Your task to perform on an android device: Go to privacy settings Image 0: 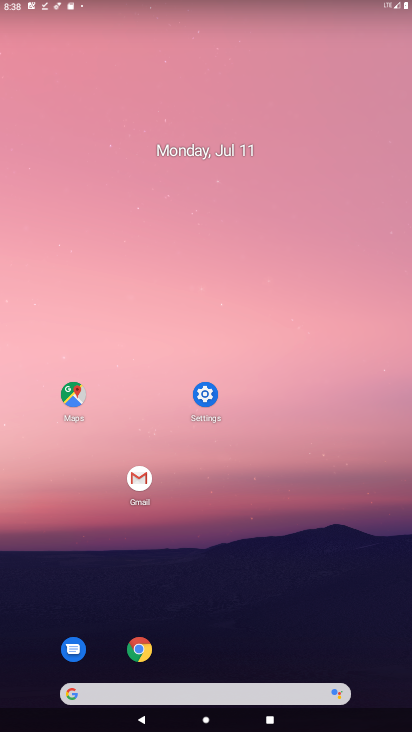
Step 0: click (204, 398)
Your task to perform on an android device: Go to privacy settings Image 1: 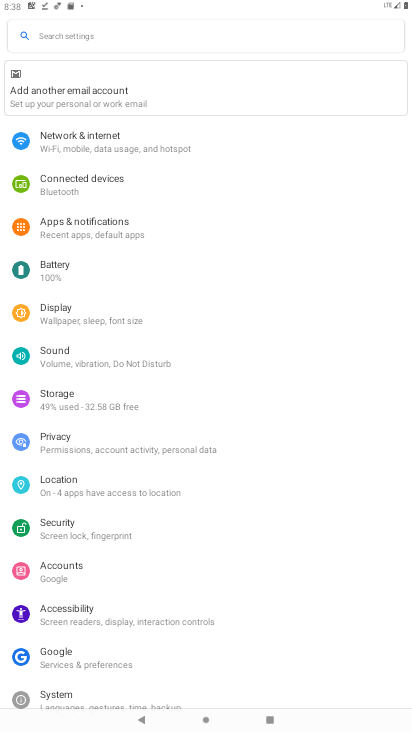
Step 1: click (60, 437)
Your task to perform on an android device: Go to privacy settings Image 2: 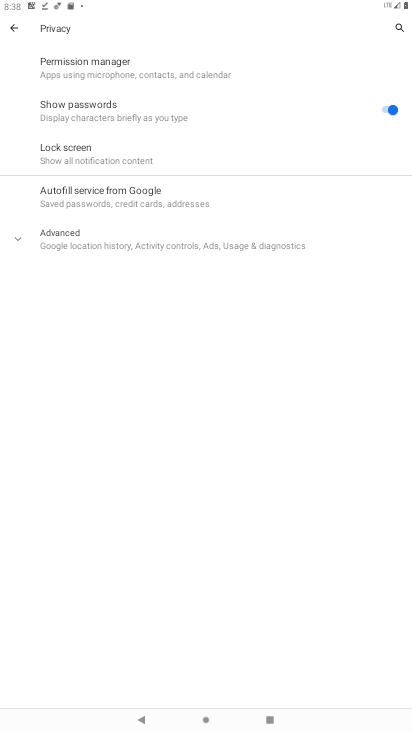
Step 2: click (16, 240)
Your task to perform on an android device: Go to privacy settings Image 3: 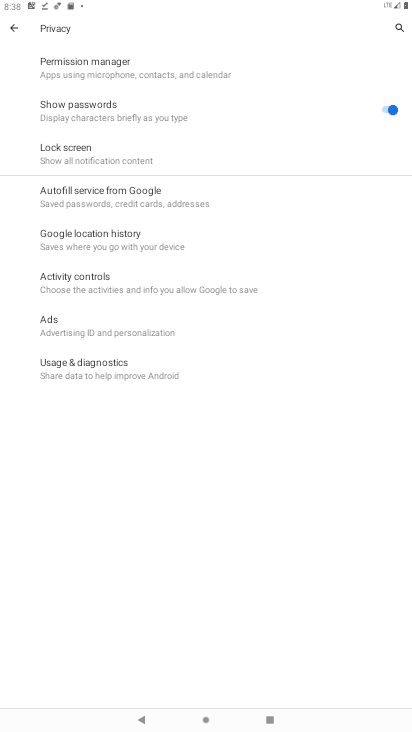
Step 3: task complete